Your task to perform on an android device: clear history in the chrome app Image 0: 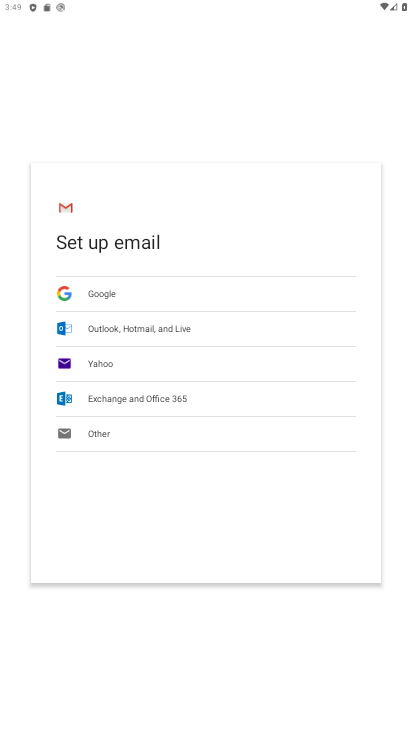
Step 0: press home button
Your task to perform on an android device: clear history in the chrome app Image 1: 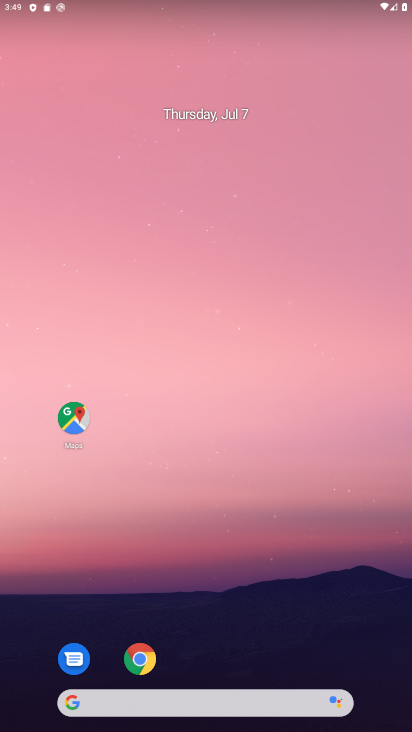
Step 1: click (227, 12)
Your task to perform on an android device: clear history in the chrome app Image 2: 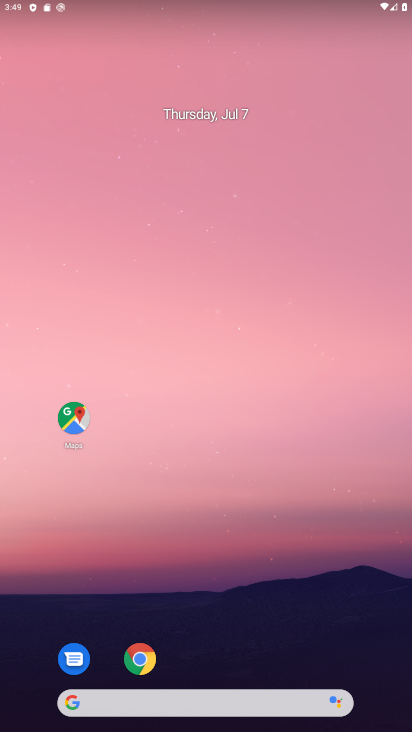
Step 2: click (137, 654)
Your task to perform on an android device: clear history in the chrome app Image 3: 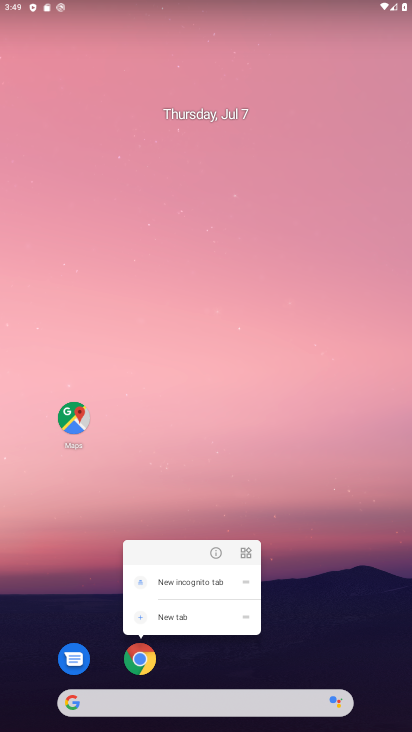
Step 3: click (137, 654)
Your task to perform on an android device: clear history in the chrome app Image 4: 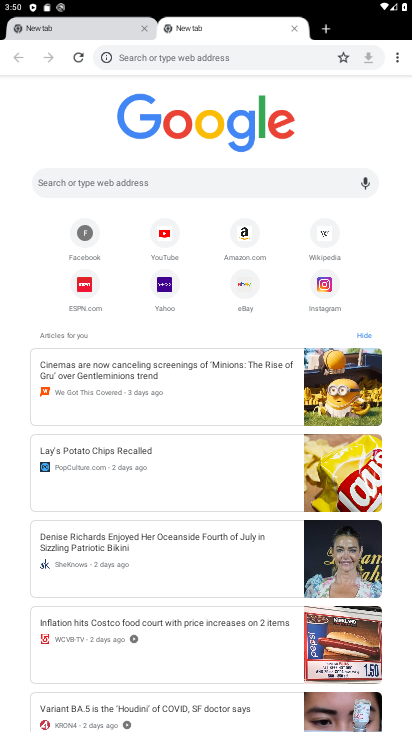
Step 4: click (394, 60)
Your task to perform on an android device: clear history in the chrome app Image 5: 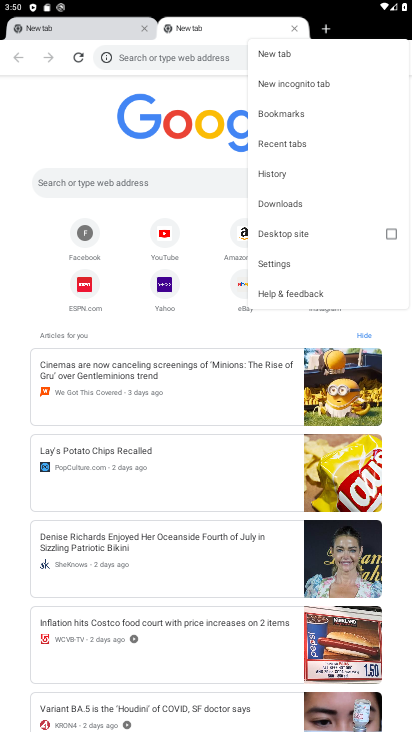
Step 5: click (280, 178)
Your task to perform on an android device: clear history in the chrome app Image 6: 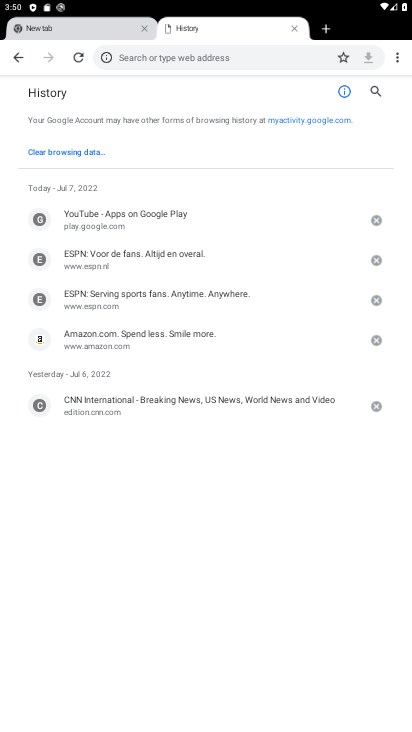
Step 6: click (55, 145)
Your task to perform on an android device: clear history in the chrome app Image 7: 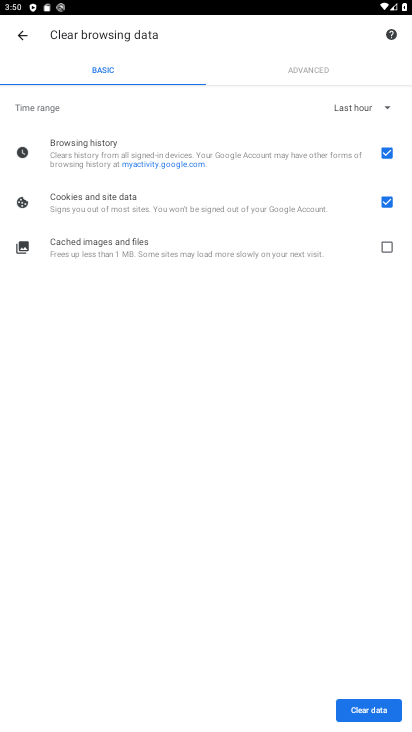
Step 7: click (377, 712)
Your task to perform on an android device: clear history in the chrome app Image 8: 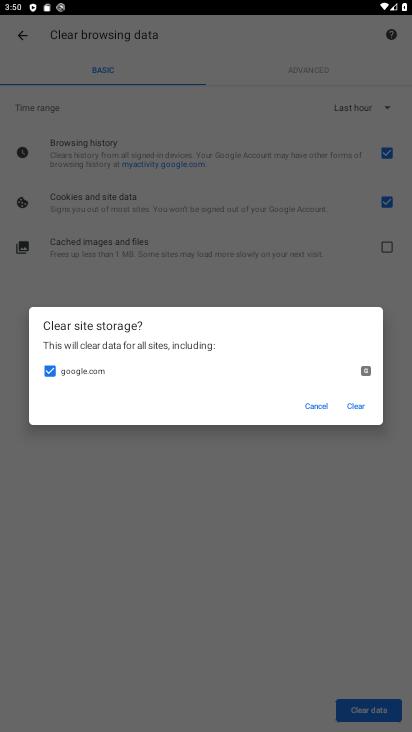
Step 8: click (358, 404)
Your task to perform on an android device: clear history in the chrome app Image 9: 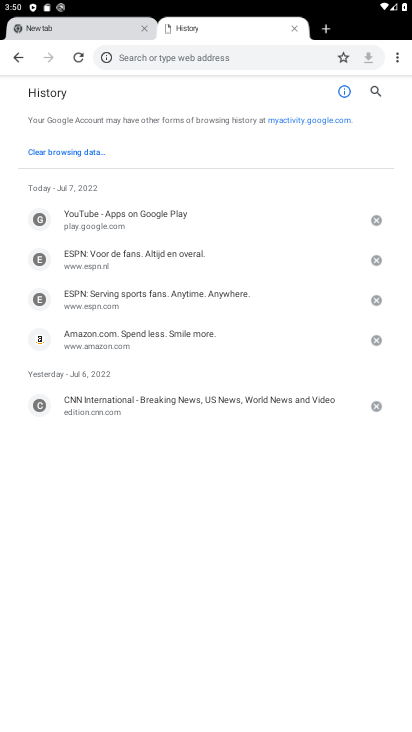
Step 9: click (76, 146)
Your task to perform on an android device: clear history in the chrome app Image 10: 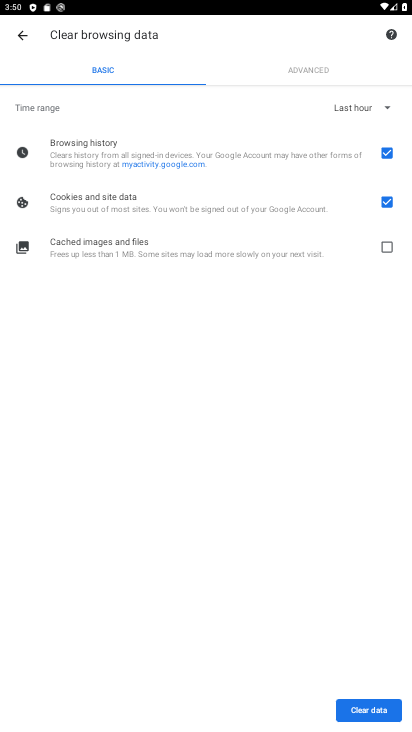
Step 10: click (386, 253)
Your task to perform on an android device: clear history in the chrome app Image 11: 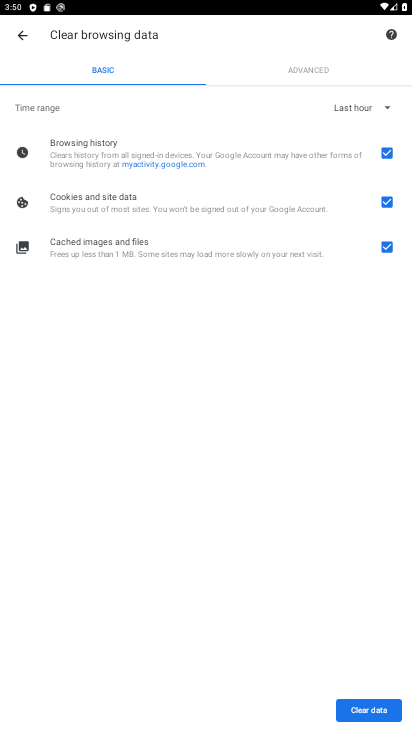
Step 11: click (360, 712)
Your task to perform on an android device: clear history in the chrome app Image 12: 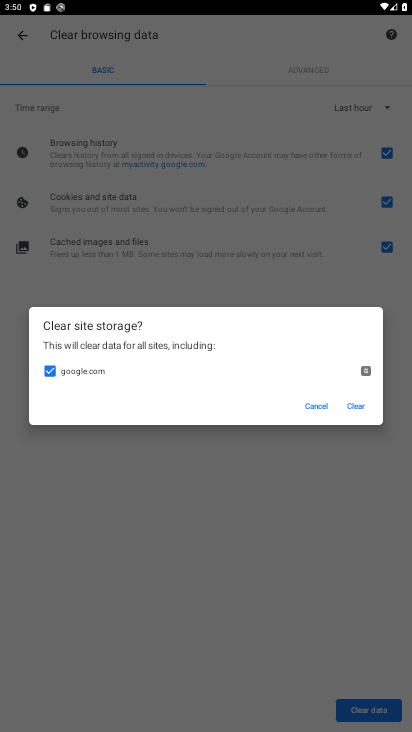
Step 12: click (360, 403)
Your task to perform on an android device: clear history in the chrome app Image 13: 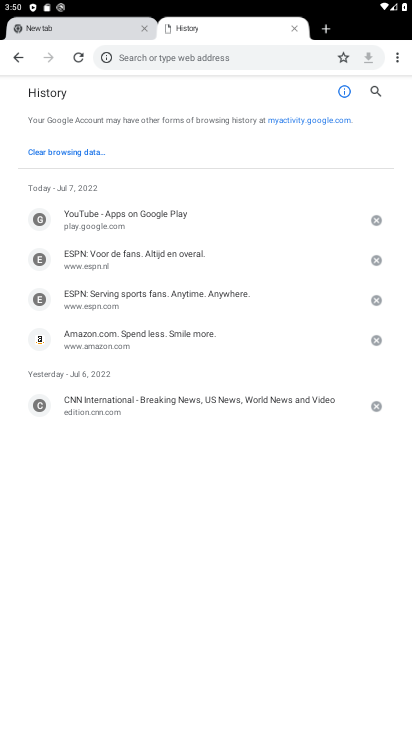
Step 13: click (37, 143)
Your task to perform on an android device: clear history in the chrome app Image 14: 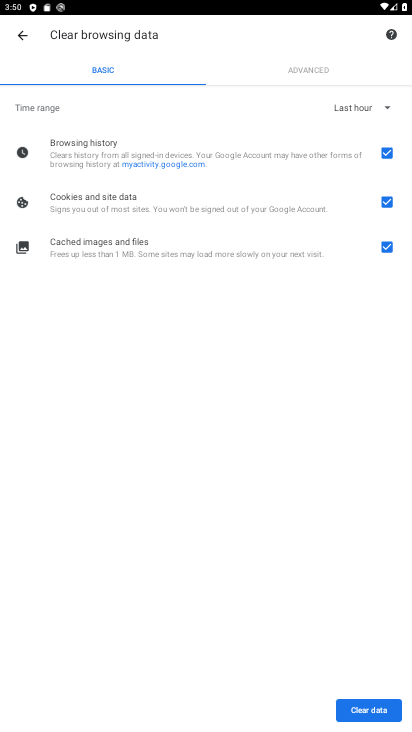
Step 14: click (365, 103)
Your task to perform on an android device: clear history in the chrome app Image 15: 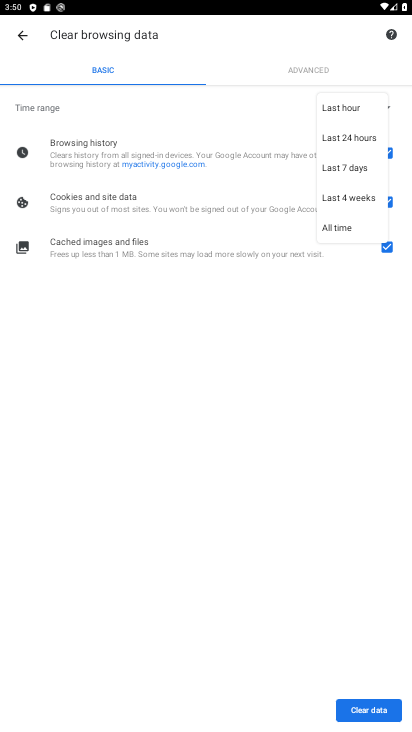
Step 15: click (350, 224)
Your task to perform on an android device: clear history in the chrome app Image 16: 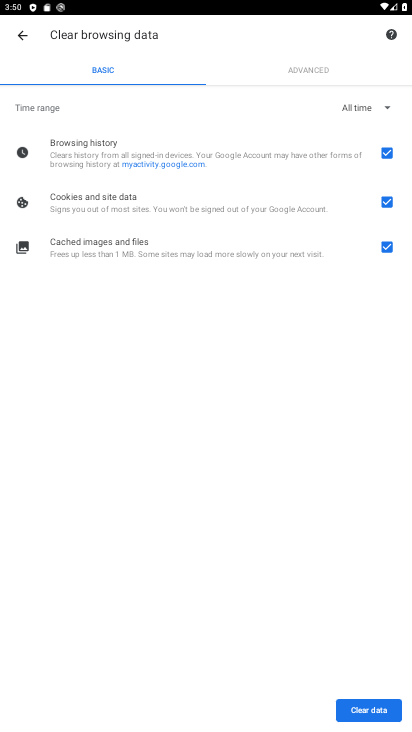
Step 16: click (374, 705)
Your task to perform on an android device: clear history in the chrome app Image 17: 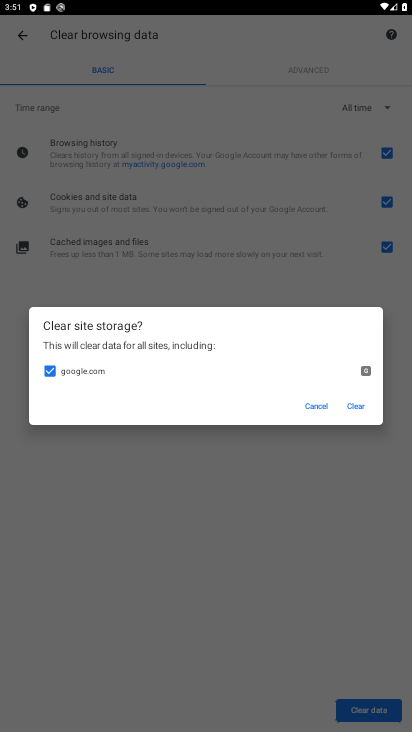
Step 17: click (358, 404)
Your task to perform on an android device: clear history in the chrome app Image 18: 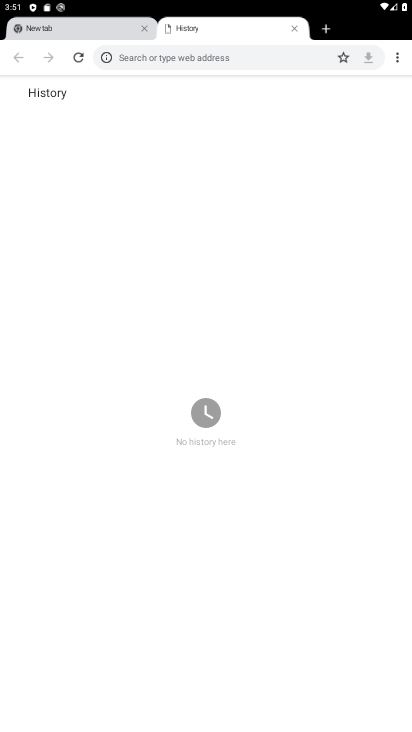
Step 18: task complete